Your task to perform on an android device: Open network settings Image 0: 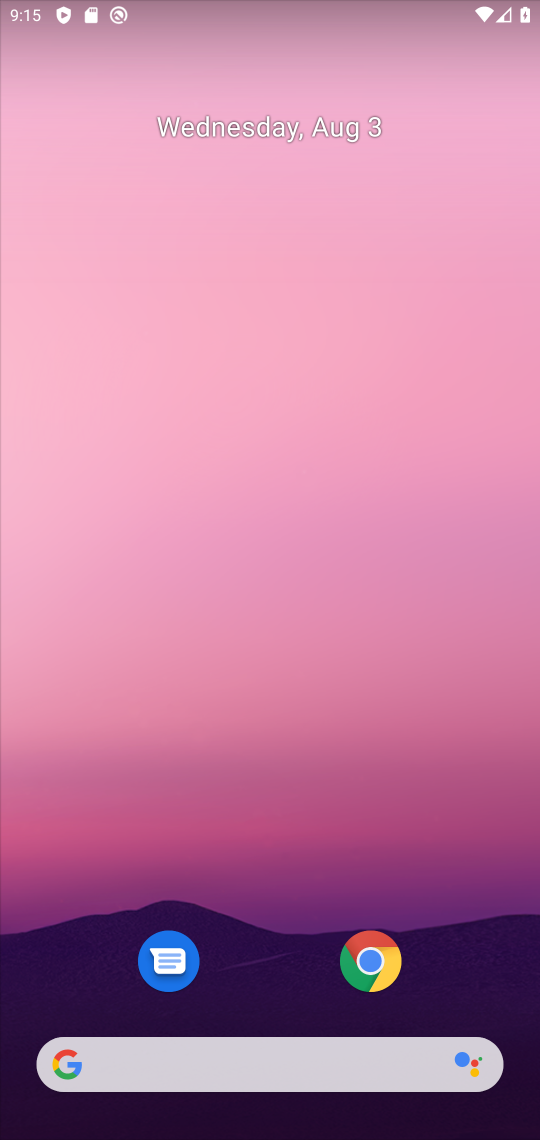
Step 0: drag from (243, 979) to (33, 158)
Your task to perform on an android device: Open network settings Image 1: 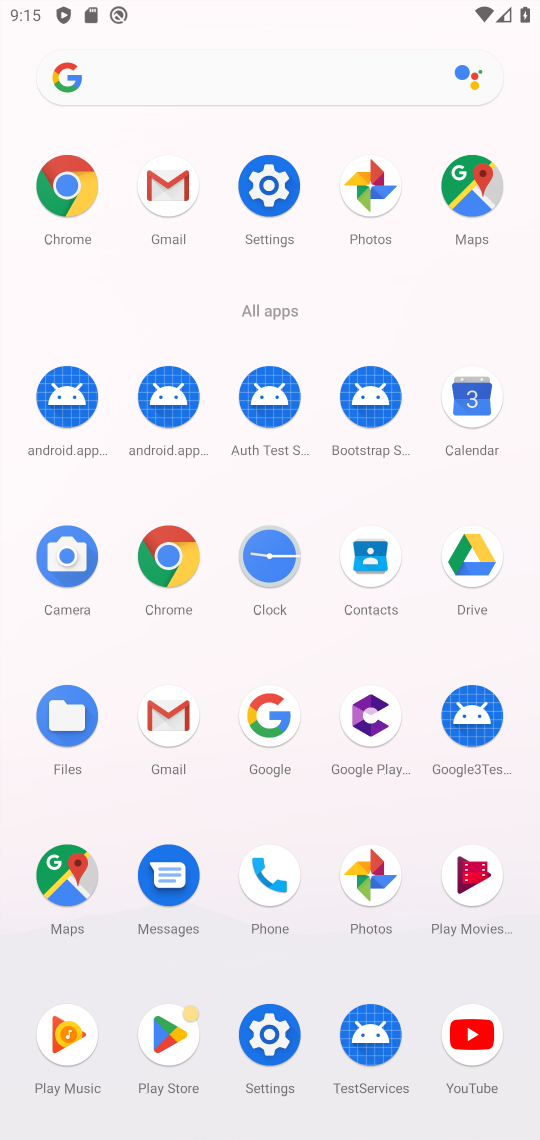
Step 1: click (264, 242)
Your task to perform on an android device: Open network settings Image 2: 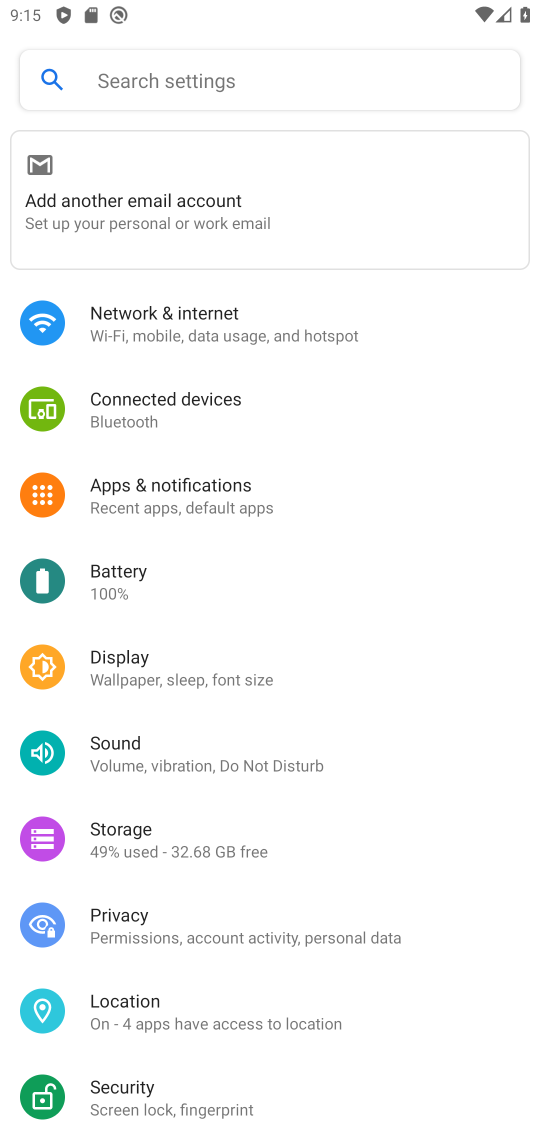
Step 2: click (197, 312)
Your task to perform on an android device: Open network settings Image 3: 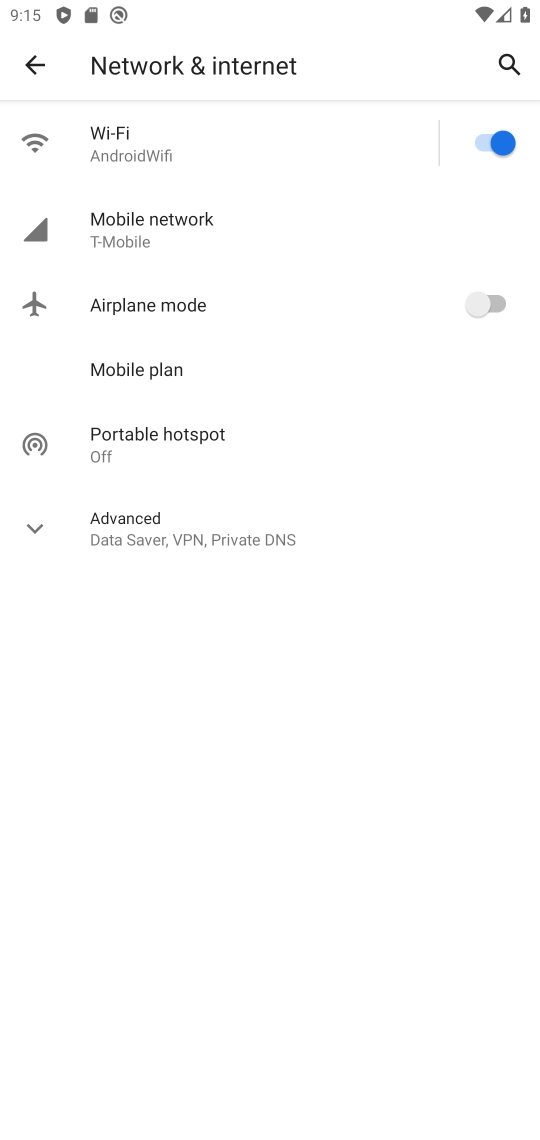
Step 3: click (179, 220)
Your task to perform on an android device: Open network settings Image 4: 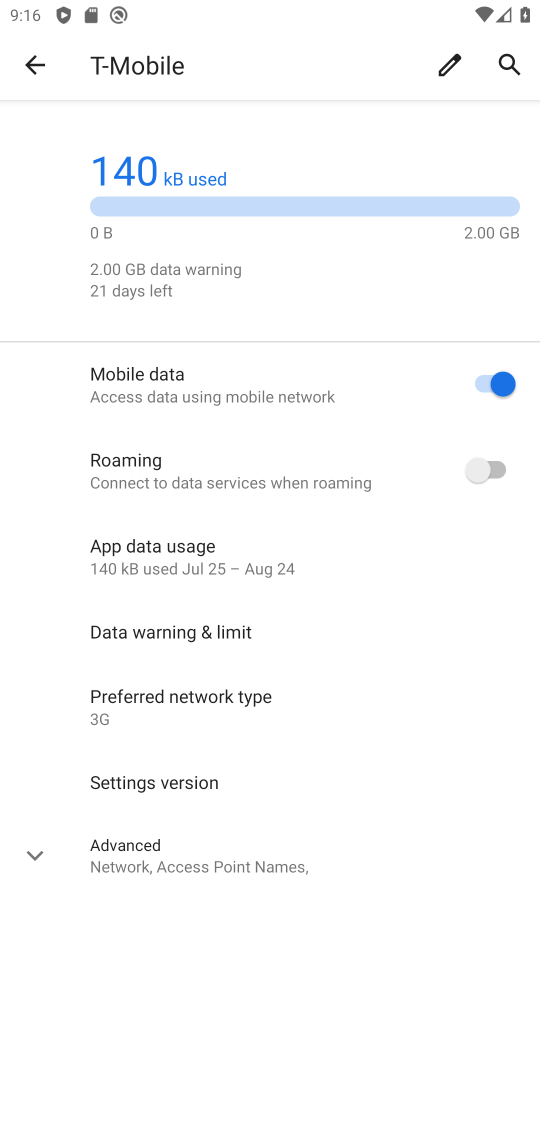
Step 4: task complete